Your task to perform on an android device: Search for seafood restaurants on Google Maps Image 0: 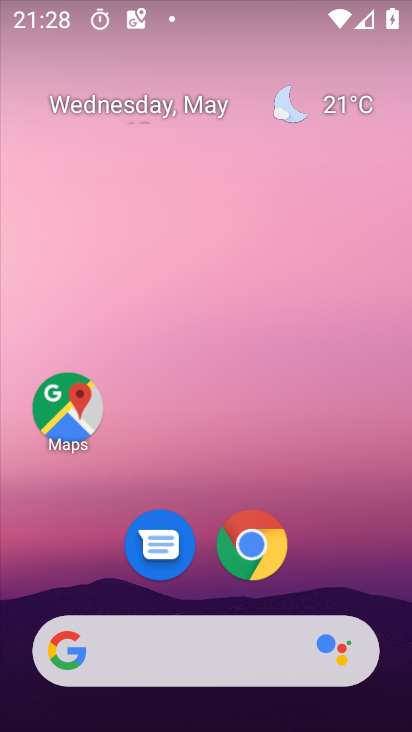
Step 0: drag from (323, 586) to (288, 10)
Your task to perform on an android device: Search for seafood restaurants on Google Maps Image 1: 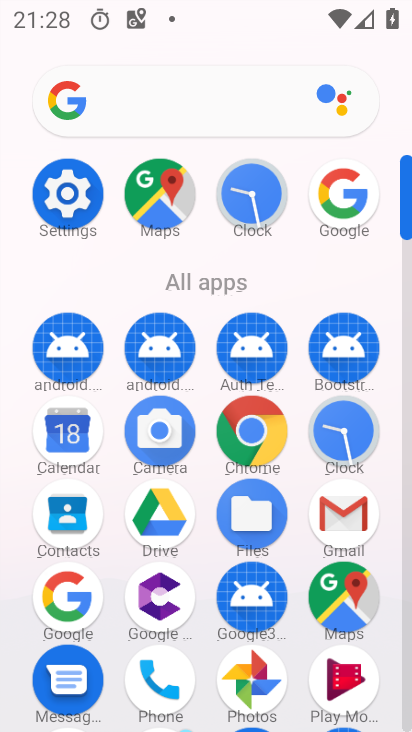
Step 1: click (165, 179)
Your task to perform on an android device: Search for seafood restaurants on Google Maps Image 2: 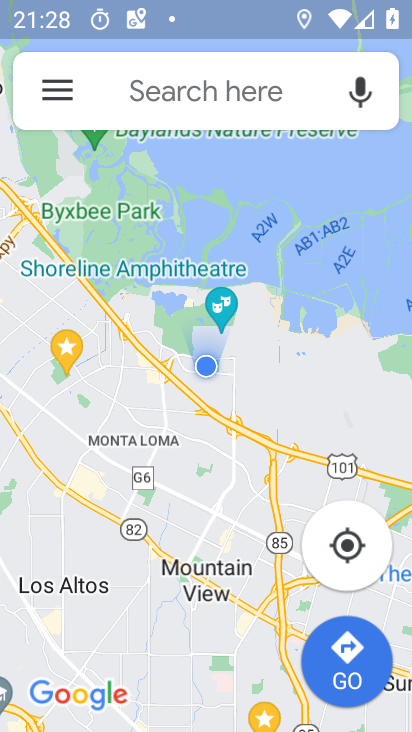
Step 2: click (207, 77)
Your task to perform on an android device: Search for seafood restaurants on Google Maps Image 3: 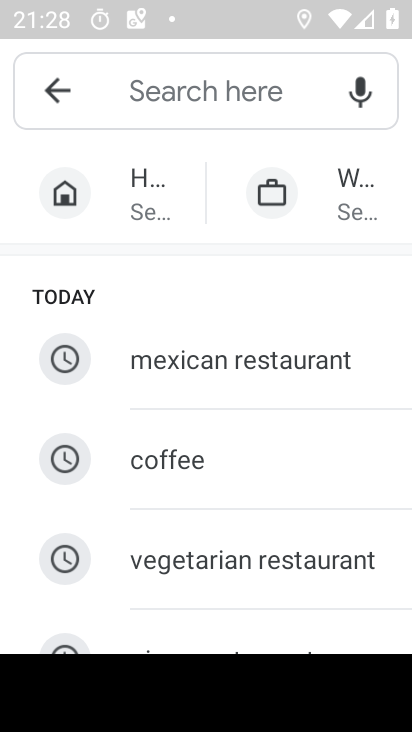
Step 3: type "seafood restaurants "
Your task to perform on an android device: Search for seafood restaurants on Google Maps Image 4: 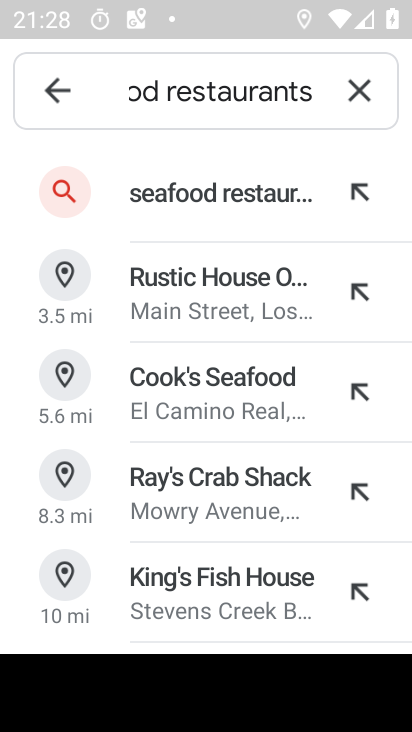
Step 4: click (187, 183)
Your task to perform on an android device: Search for seafood restaurants on Google Maps Image 5: 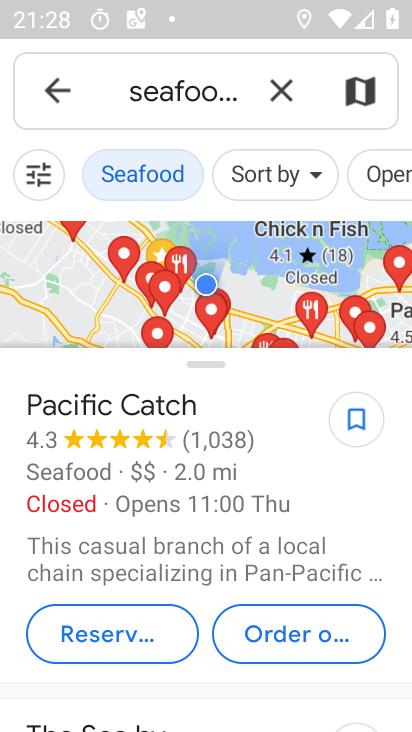
Step 5: task complete